Your task to perform on an android device: clear history in the chrome app Image 0: 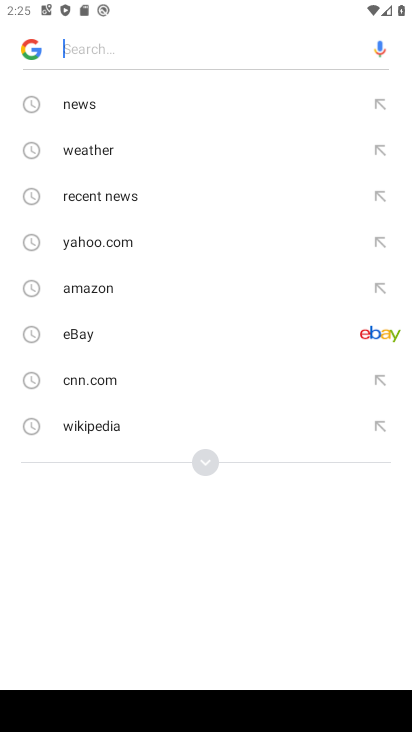
Step 0: press back button
Your task to perform on an android device: clear history in the chrome app Image 1: 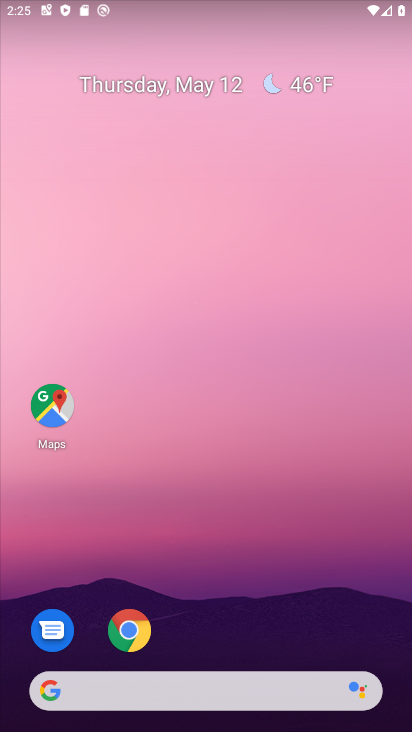
Step 1: click (129, 632)
Your task to perform on an android device: clear history in the chrome app Image 2: 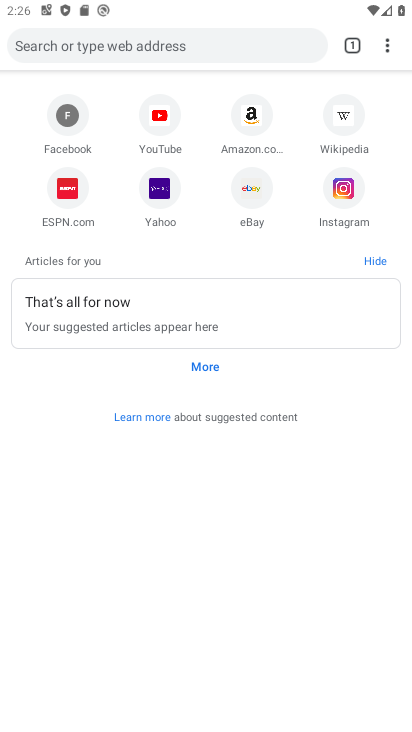
Step 2: click (387, 45)
Your task to perform on an android device: clear history in the chrome app Image 3: 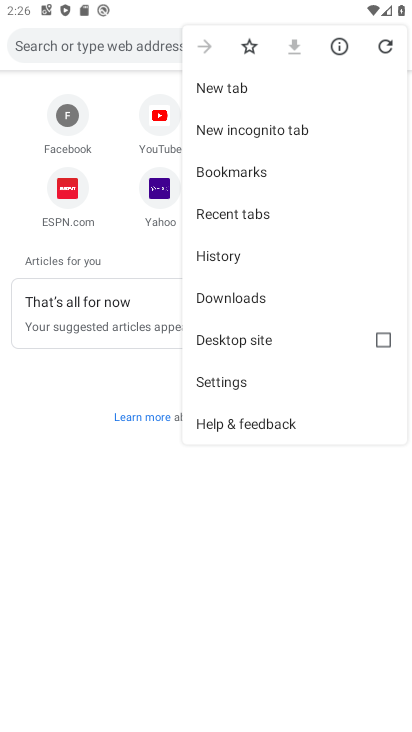
Step 3: click (234, 252)
Your task to perform on an android device: clear history in the chrome app Image 4: 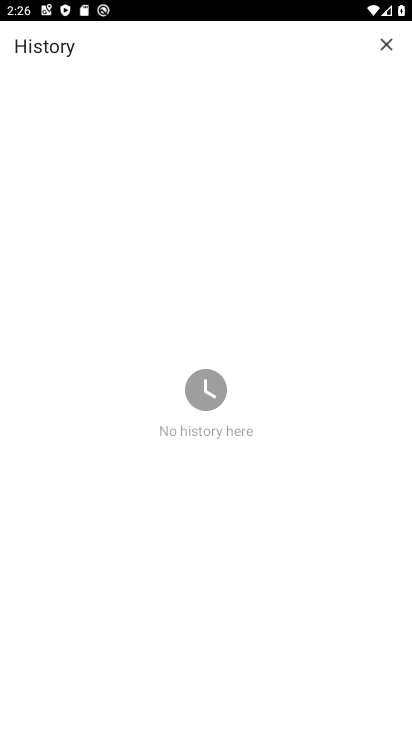
Step 4: task complete